Your task to perform on an android device: open chrome and create a bookmark for the current page Image 0: 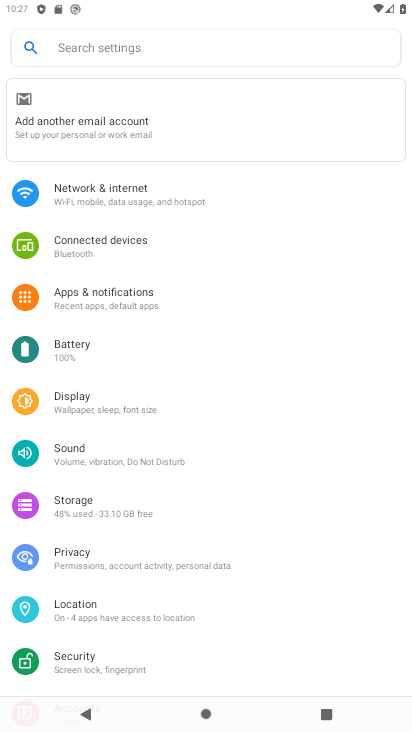
Step 0: press home button
Your task to perform on an android device: open chrome and create a bookmark for the current page Image 1: 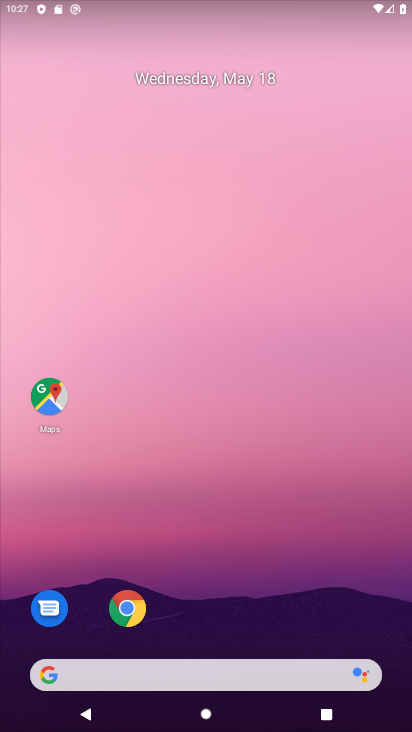
Step 1: click (128, 612)
Your task to perform on an android device: open chrome and create a bookmark for the current page Image 2: 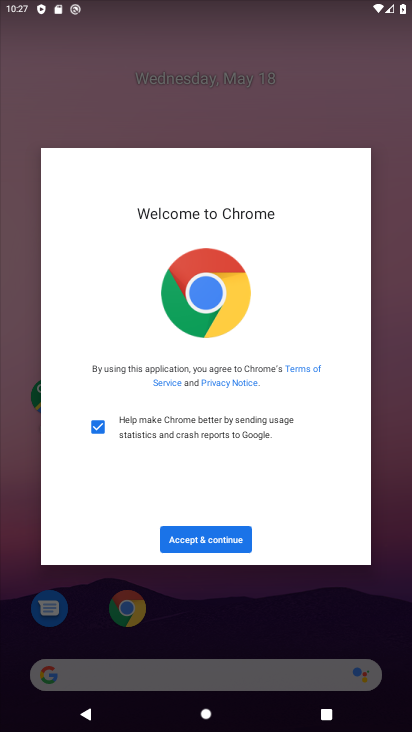
Step 2: click (203, 545)
Your task to perform on an android device: open chrome and create a bookmark for the current page Image 3: 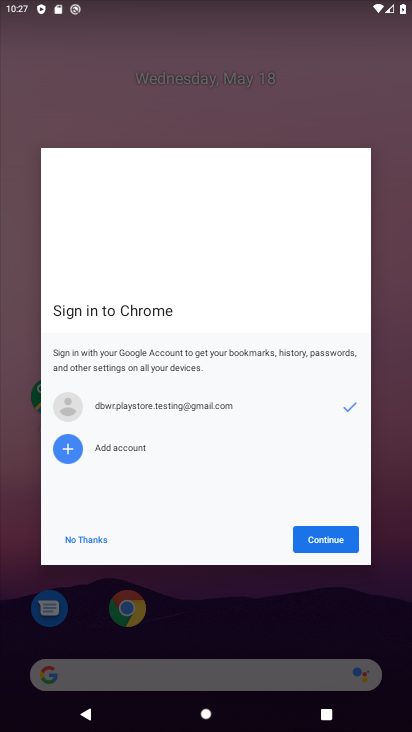
Step 3: click (338, 542)
Your task to perform on an android device: open chrome and create a bookmark for the current page Image 4: 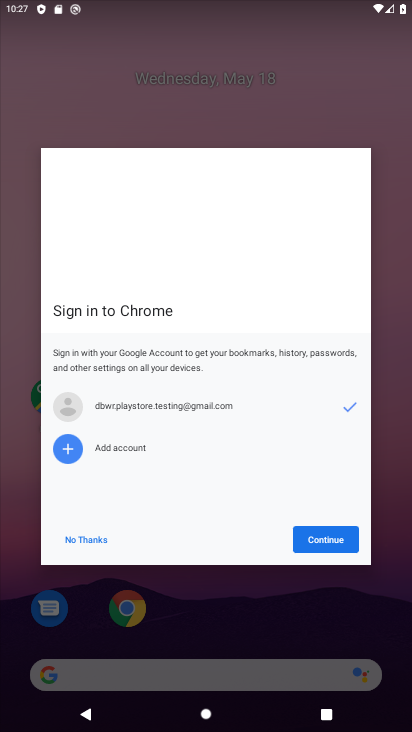
Step 4: click (338, 542)
Your task to perform on an android device: open chrome and create a bookmark for the current page Image 5: 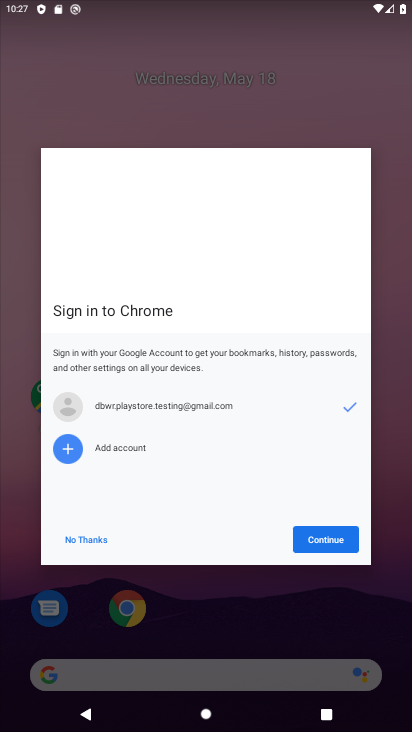
Step 5: click (338, 542)
Your task to perform on an android device: open chrome and create a bookmark for the current page Image 6: 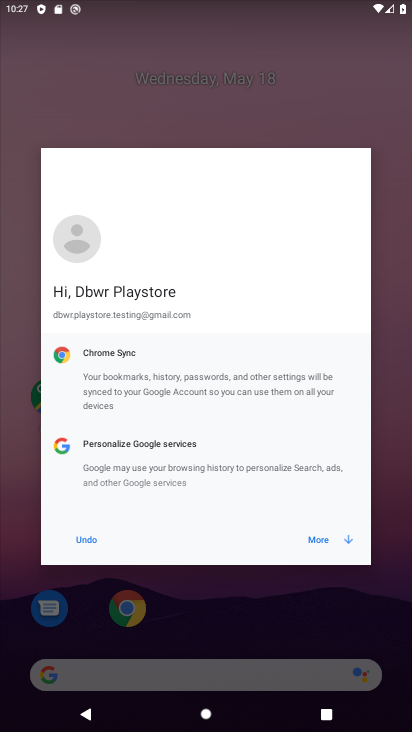
Step 6: click (338, 542)
Your task to perform on an android device: open chrome and create a bookmark for the current page Image 7: 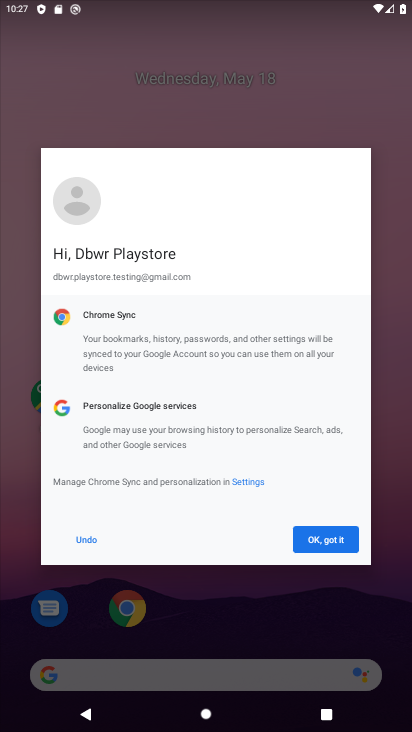
Step 7: click (338, 542)
Your task to perform on an android device: open chrome and create a bookmark for the current page Image 8: 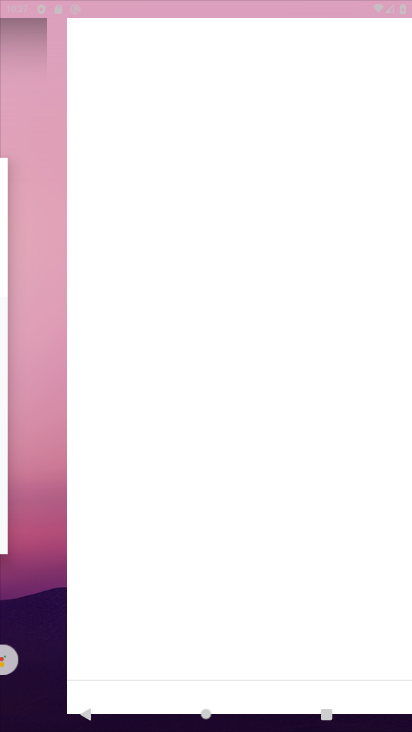
Step 8: click (338, 542)
Your task to perform on an android device: open chrome and create a bookmark for the current page Image 9: 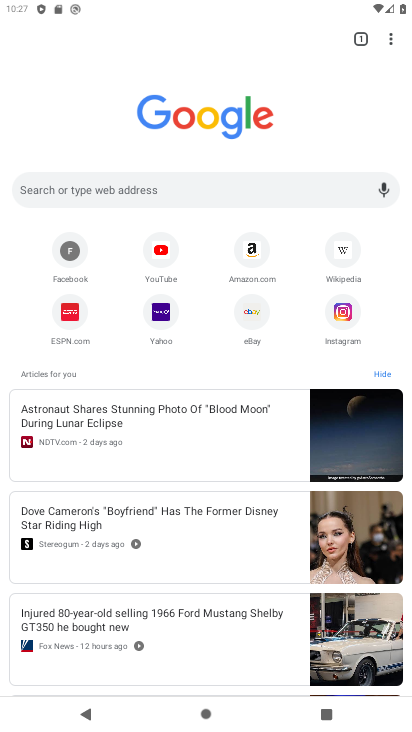
Step 9: task complete